Your task to perform on an android device: search for starred emails in the gmail app Image 0: 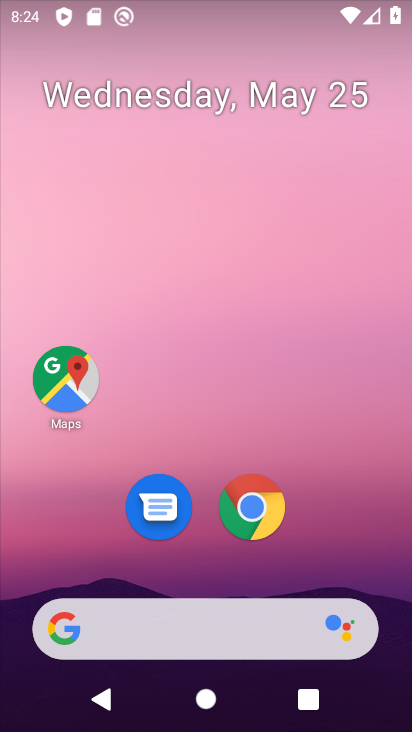
Step 0: click (159, 296)
Your task to perform on an android device: search for starred emails in the gmail app Image 1: 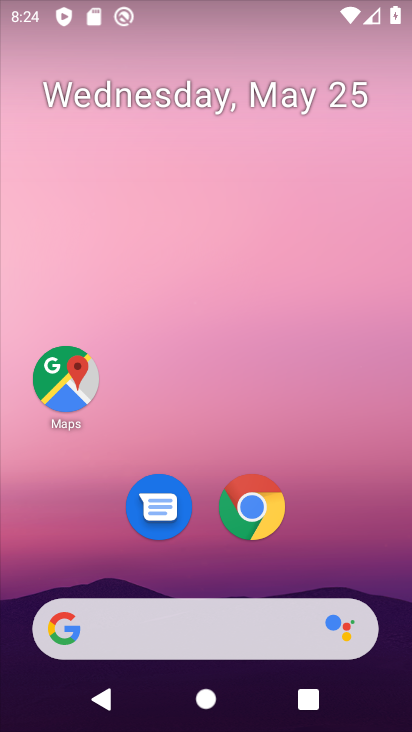
Step 1: drag from (240, 574) to (286, 20)
Your task to perform on an android device: search for starred emails in the gmail app Image 2: 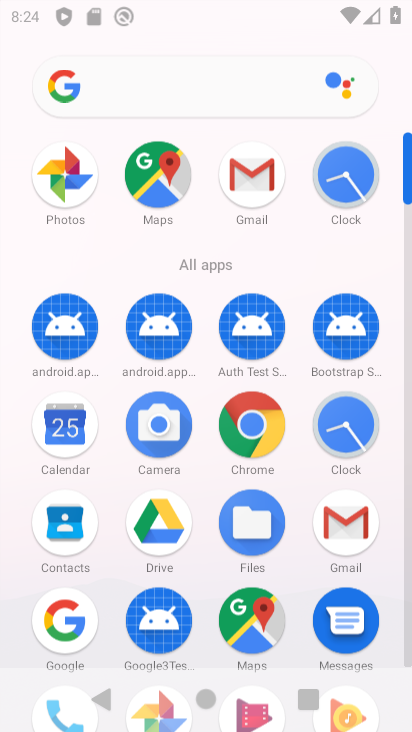
Step 2: drag from (212, 579) to (235, 102)
Your task to perform on an android device: search for starred emails in the gmail app Image 3: 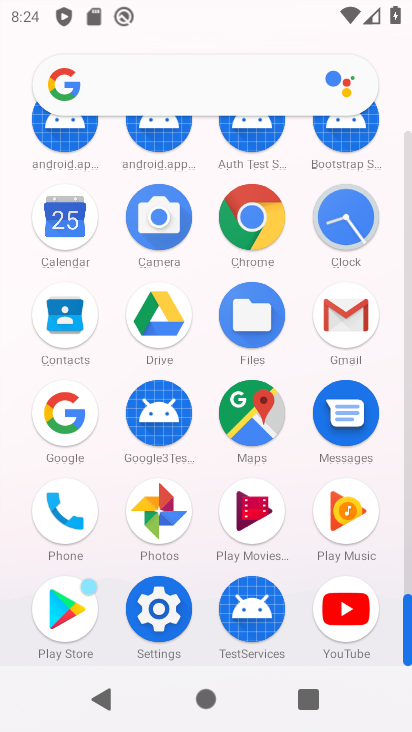
Step 3: click (357, 334)
Your task to perform on an android device: search for starred emails in the gmail app Image 4: 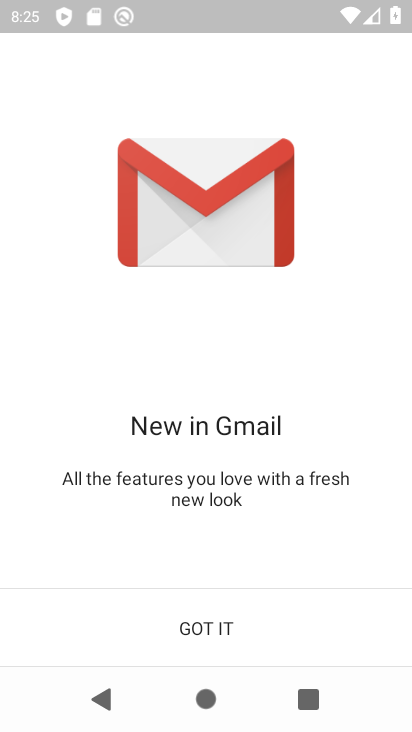
Step 4: click (188, 651)
Your task to perform on an android device: search for starred emails in the gmail app Image 5: 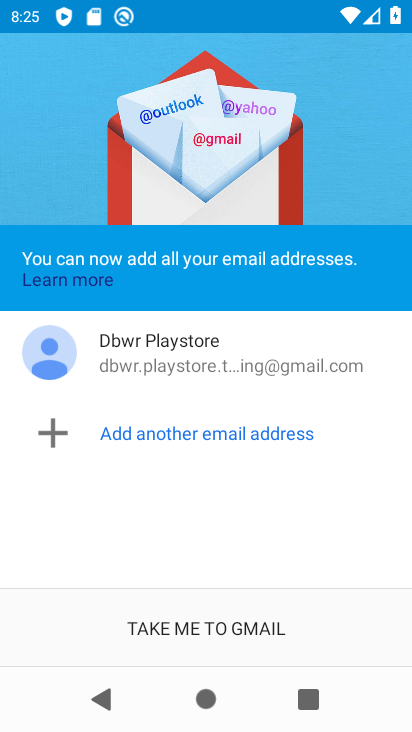
Step 5: click (188, 648)
Your task to perform on an android device: search for starred emails in the gmail app Image 6: 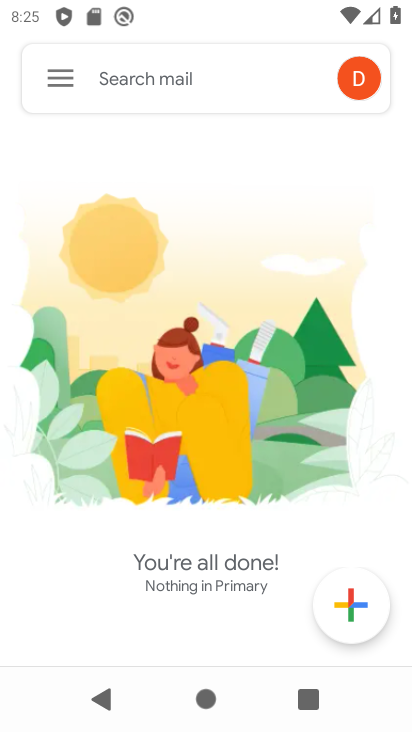
Step 6: click (40, 83)
Your task to perform on an android device: search for starred emails in the gmail app Image 7: 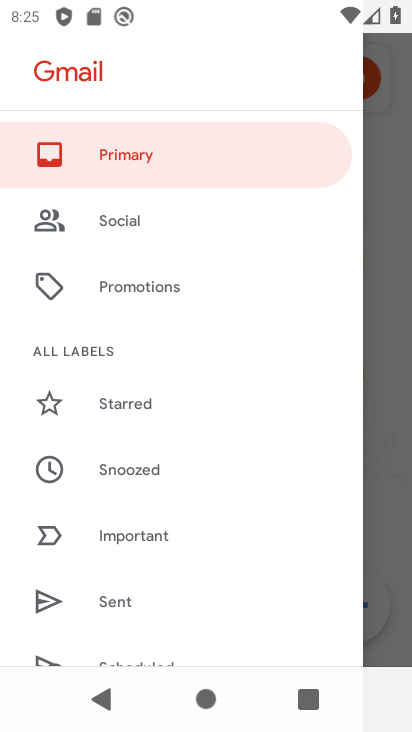
Step 7: click (59, 80)
Your task to perform on an android device: search for starred emails in the gmail app Image 8: 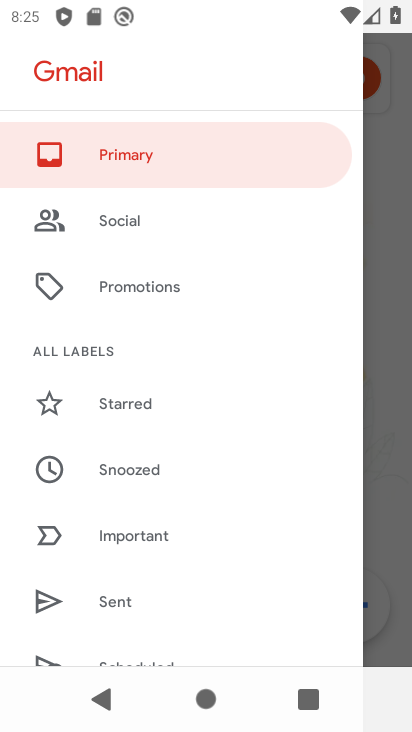
Step 8: click (128, 410)
Your task to perform on an android device: search for starred emails in the gmail app Image 9: 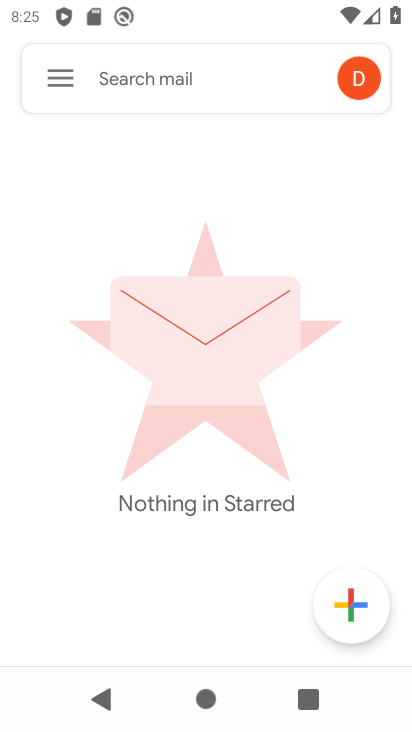
Step 9: task complete